Your task to perform on an android device: Search for sushi restaurants on Maps Image 0: 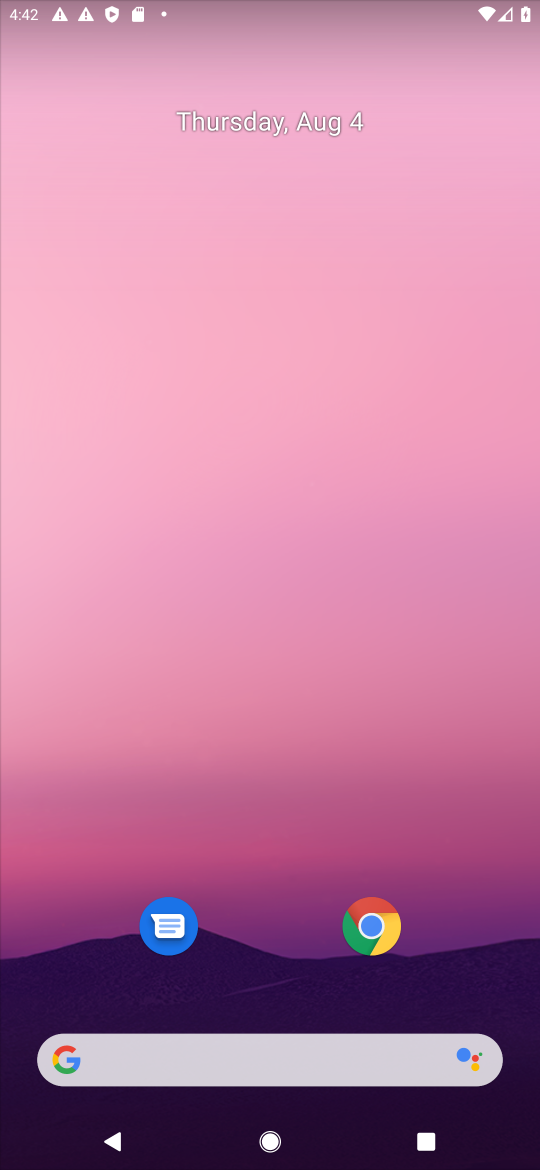
Step 0: press home button
Your task to perform on an android device: Search for sushi restaurants on Maps Image 1: 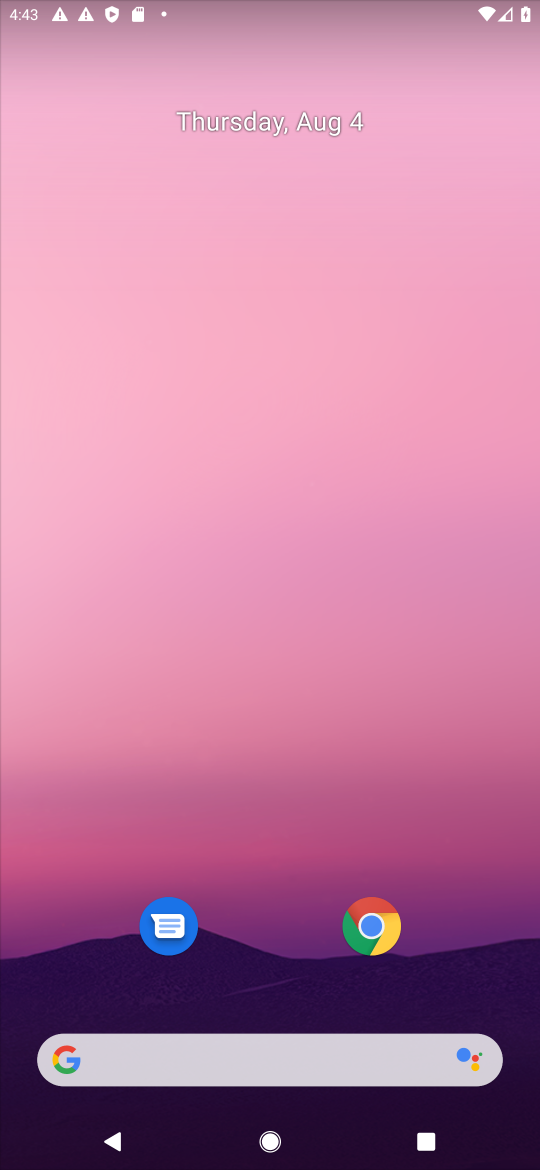
Step 1: drag from (318, 870) to (397, 151)
Your task to perform on an android device: Search for sushi restaurants on Maps Image 2: 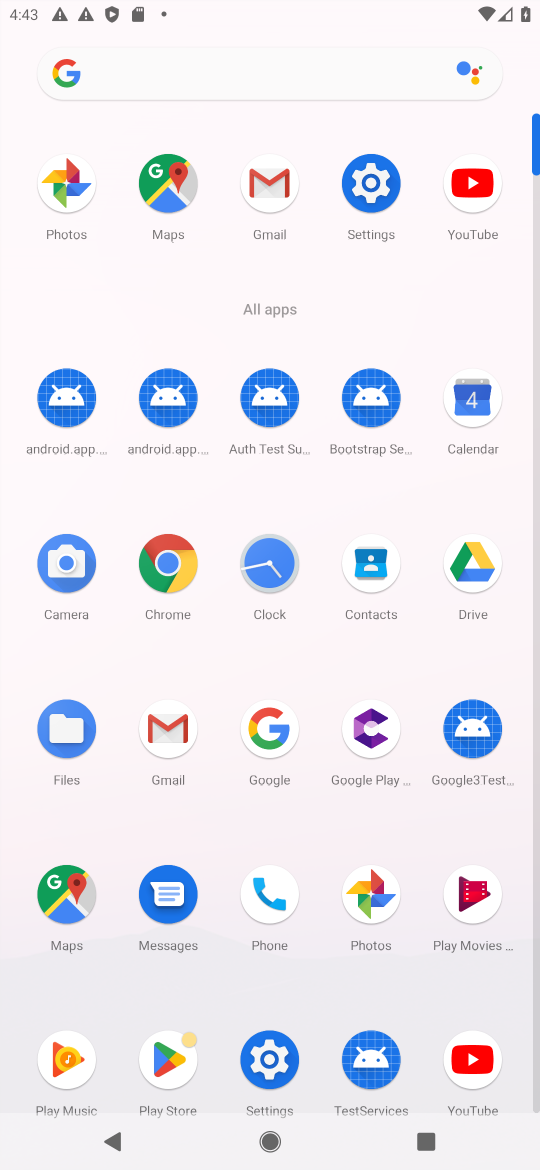
Step 2: click (159, 192)
Your task to perform on an android device: Search for sushi restaurants on Maps Image 3: 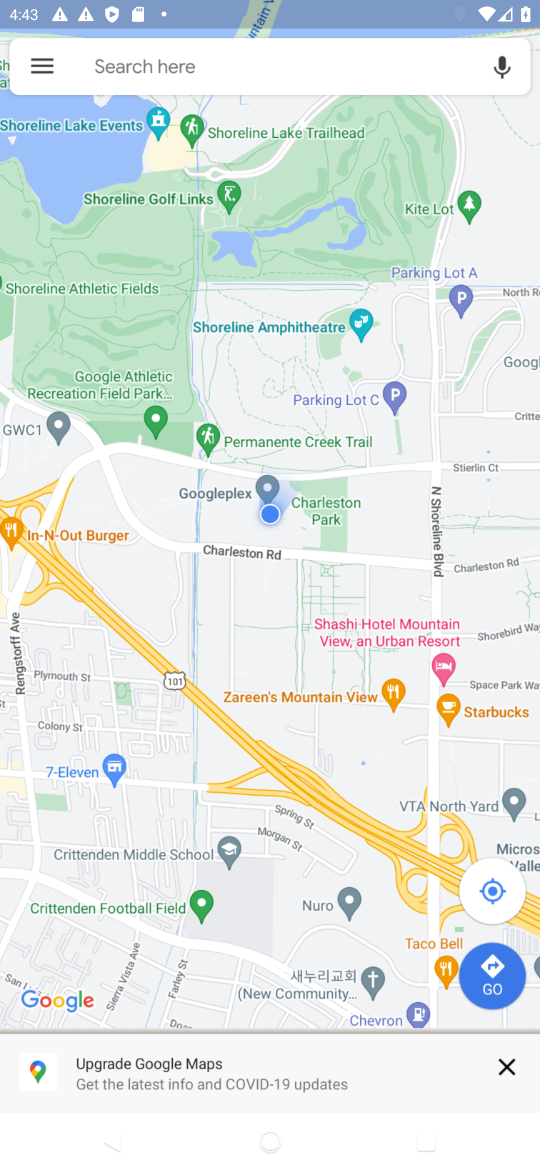
Step 3: click (185, 79)
Your task to perform on an android device: Search for sushi restaurants on Maps Image 4: 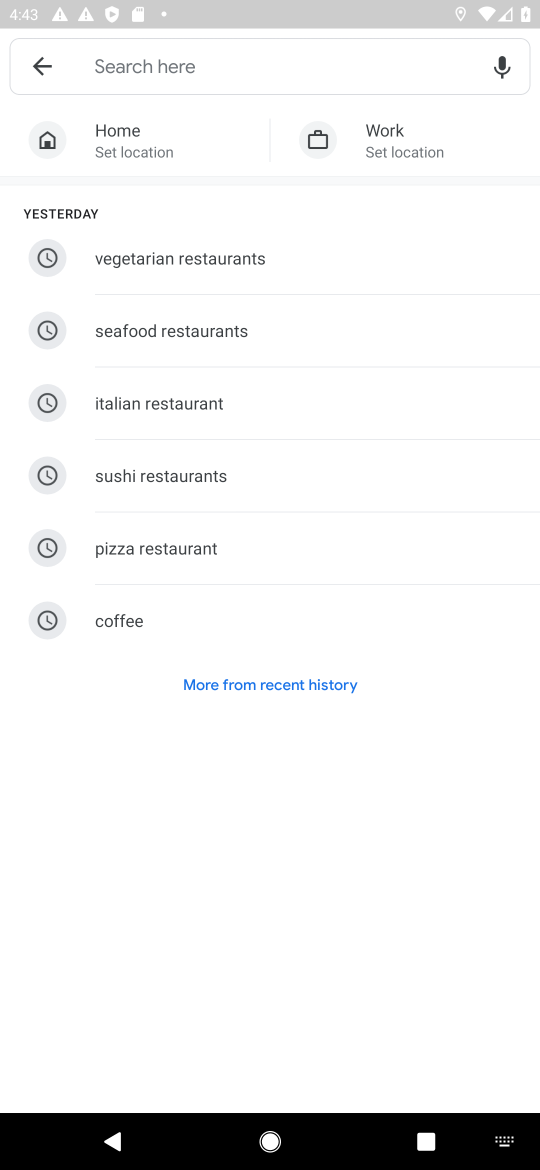
Step 4: click (174, 474)
Your task to perform on an android device: Search for sushi restaurants on Maps Image 5: 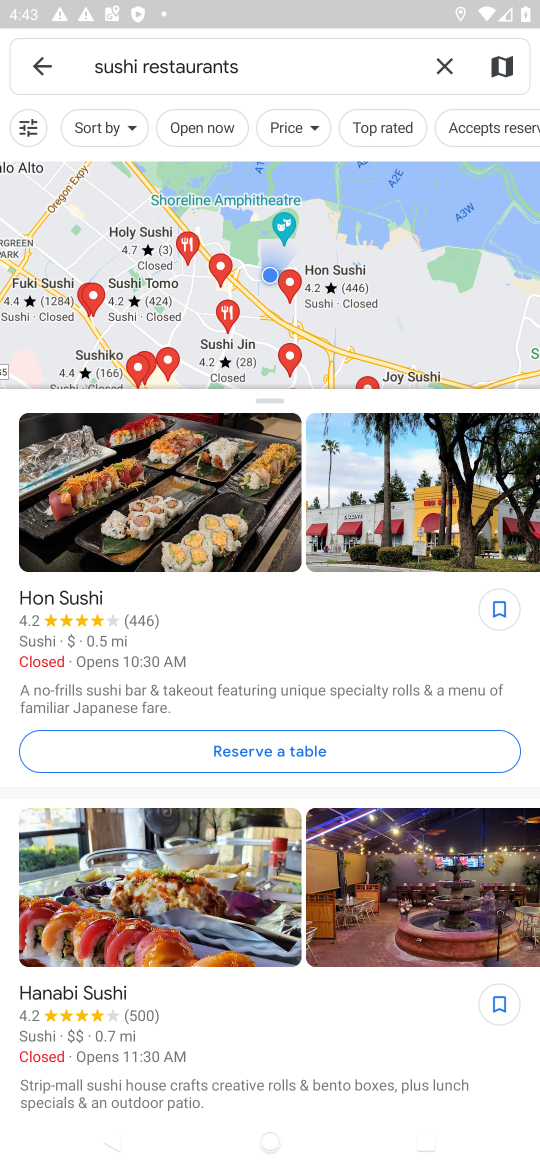
Step 5: task complete